Your task to perform on an android device: open wifi settings Image 0: 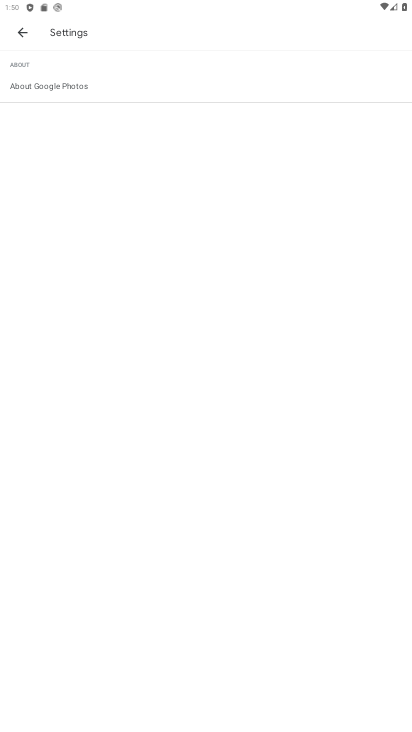
Step 0: press home button
Your task to perform on an android device: open wifi settings Image 1: 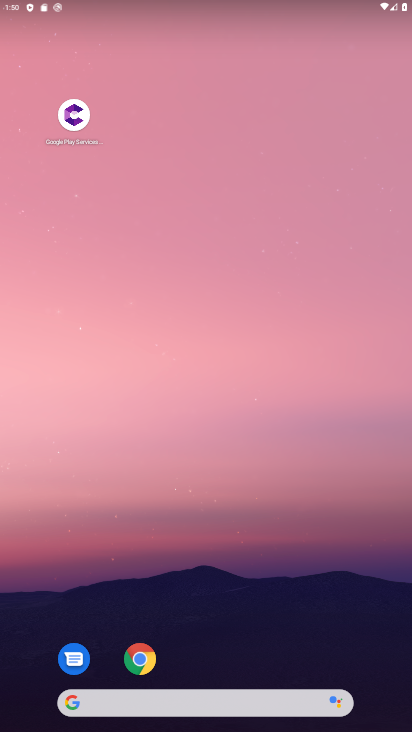
Step 1: drag from (206, 667) to (239, 168)
Your task to perform on an android device: open wifi settings Image 2: 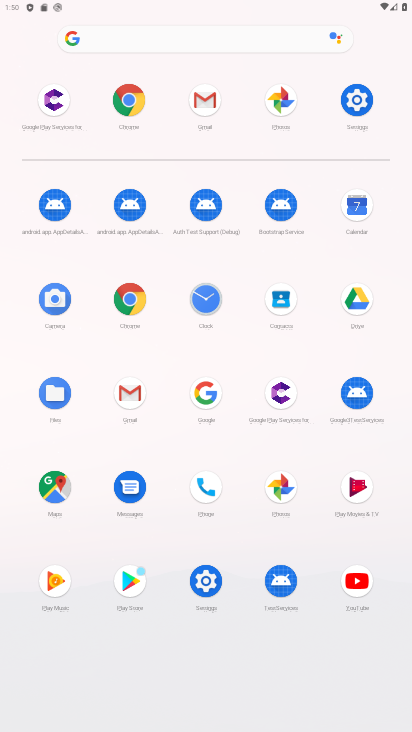
Step 2: click (364, 114)
Your task to perform on an android device: open wifi settings Image 3: 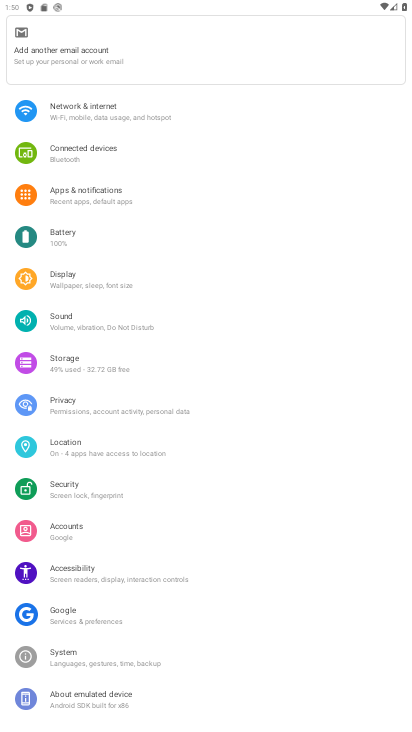
Step 3: click (162, 111)
Your task to perform on an android device: open wifi settings Image 4: 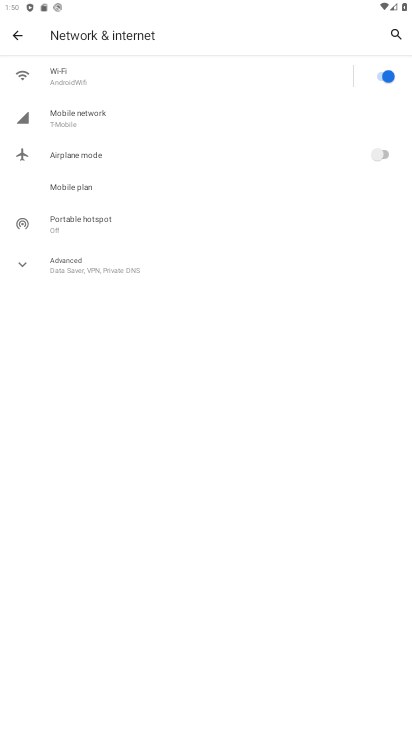
Step 4: click (178, 76)
Your task to perform on an android device: open wifi settings Image 5: 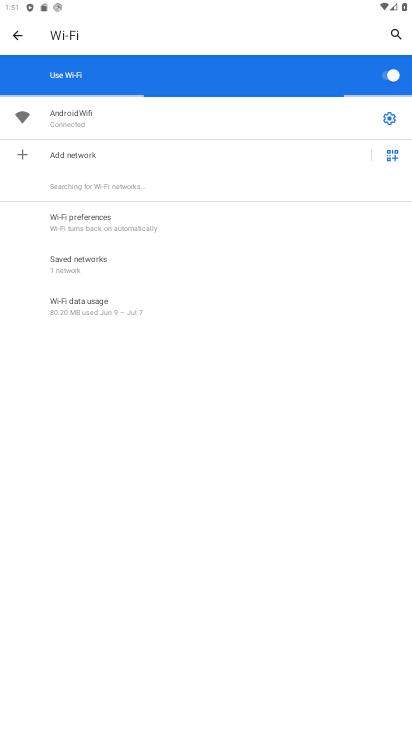
Step 5: task complete